Your task to perform on an android device: find snoozed emails in the gmail app Image 0: 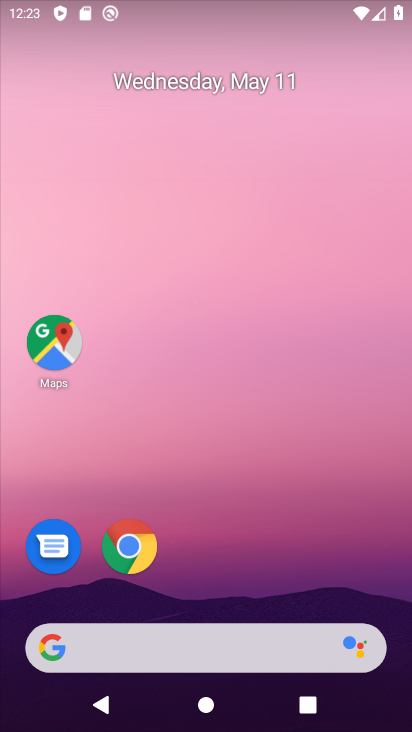
Step 0: drag from (258, 672) to (152, 271)
Your task to perform on an android device: find snoozed emails in the gmail app Image 1: 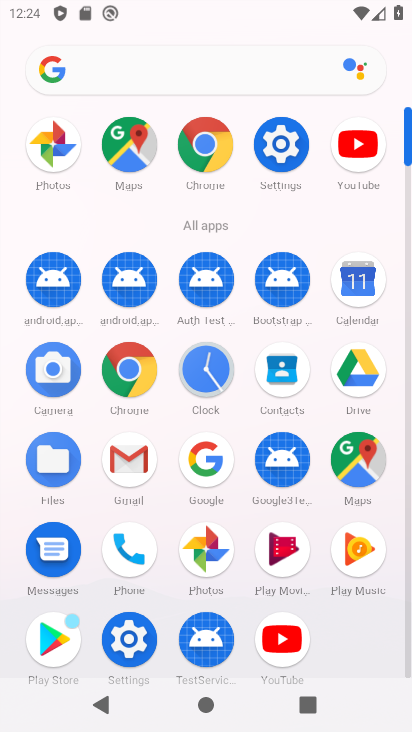
Step 1: click (139, 450)
Your task to perform on an android device: find snoozed emails in the gmail app Image 2: 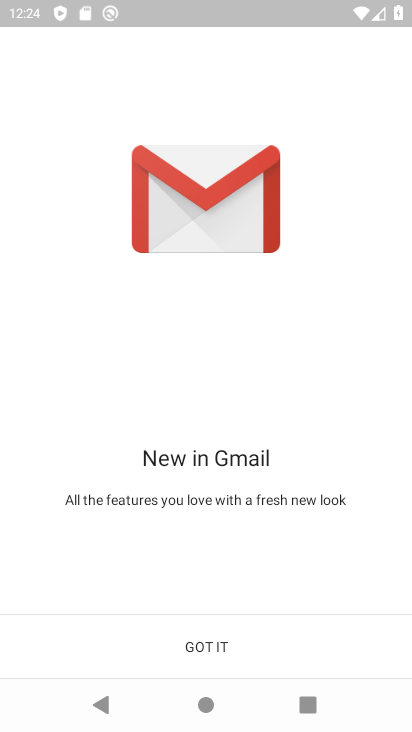
Step 2: click (260, 643)
Your task to perform on an android device: find snoozed emails in the gmail app Image 3: 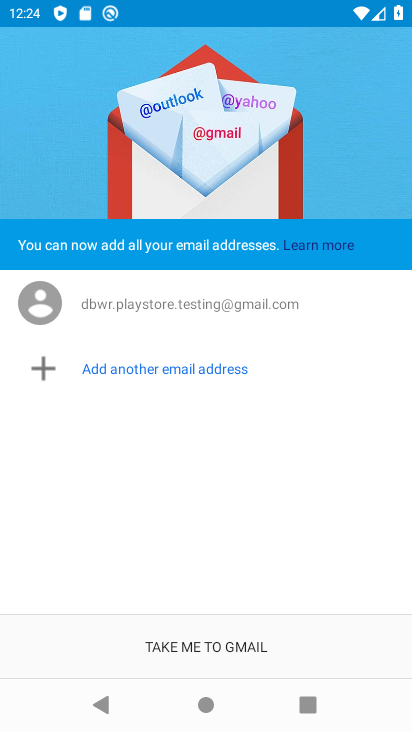
Step 3: click (238, 649)
Your task to perform on an android device: find snoozed emails in the gmail app Image 4: 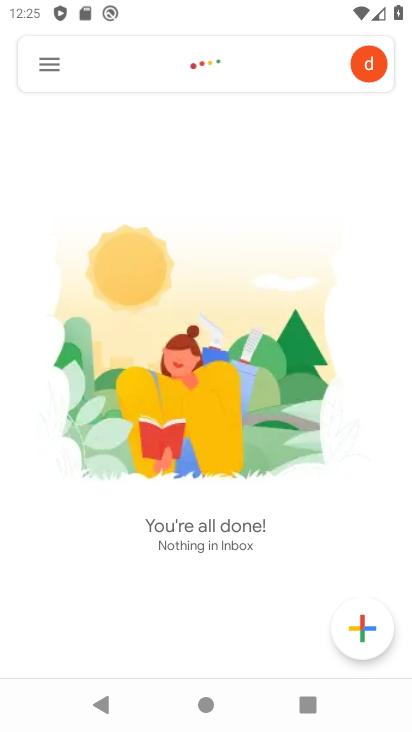
Step 4: click (51, 91)
Your task to perform on an android device: find snoozed emails in the gmail app Image 5: 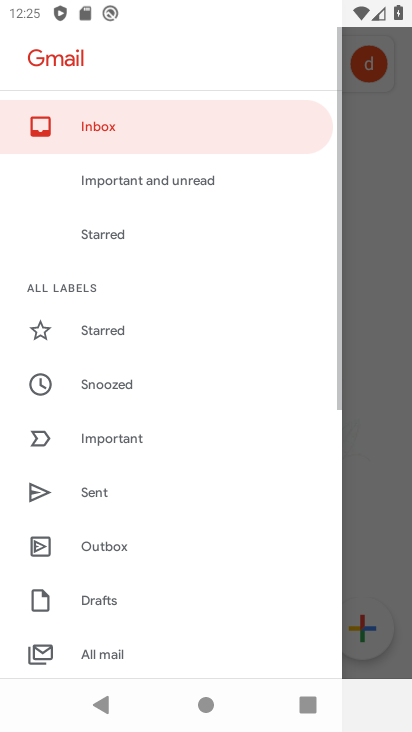
Step 5: click (130, 386)
Your task to perform on an android device: find snoozed emails in the gmail app Image 6: 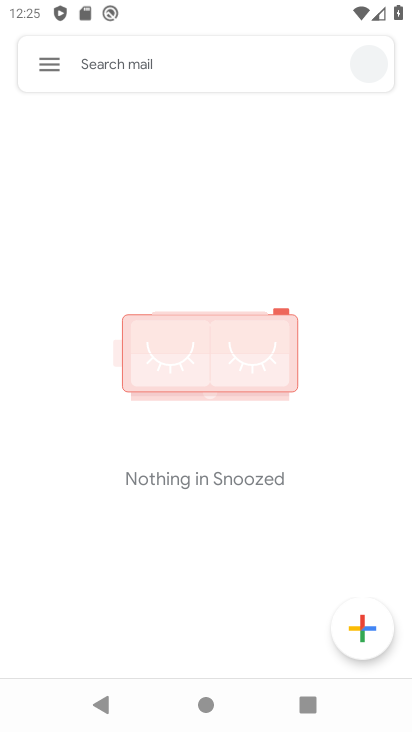
Step 6: task complete